Your task to perform on an android device: Open Google Maps and go to "Timeline" Image 0: 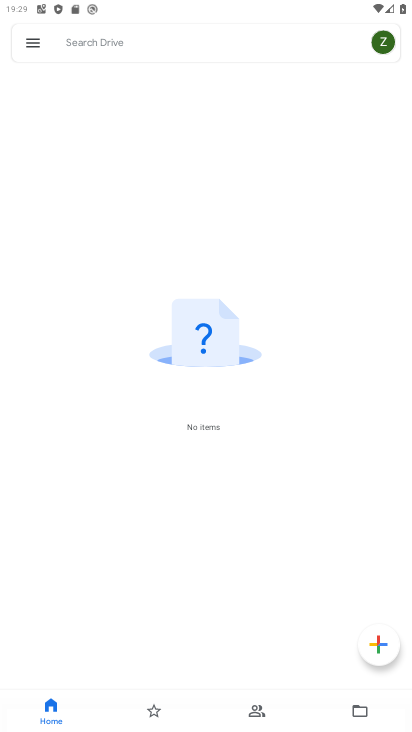
Step 0: press home button
Your task to perform on an android device: Open Google Maps and go to "Timeline" Image 1: 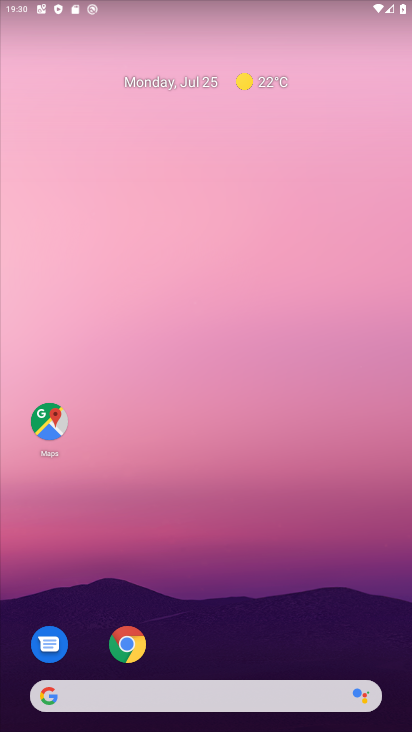
Step 1: click (47, 416)
Your task to perform on an android device: Open Google Maps and go to "Timeline" Image 2: 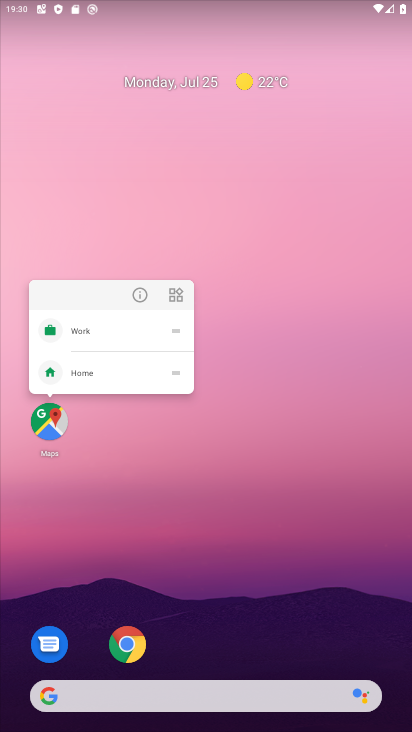
Step 2: click (47, 416)
Your task to perform on an android device: Open Google Maps and go to "Timeline" Image 3: 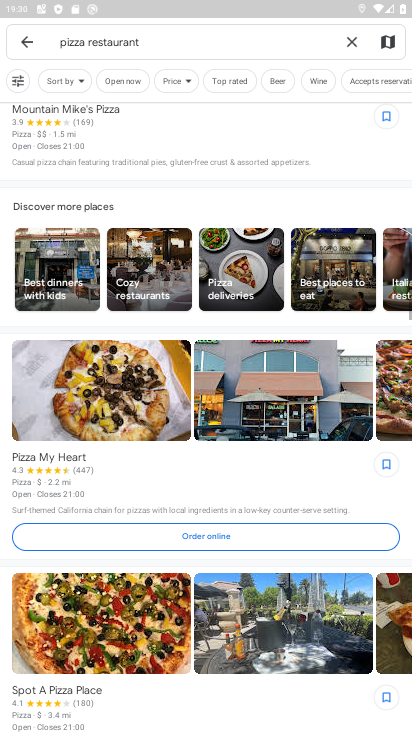
Step 3: click (28, 39)
Your task to perform on an android device: Open Google Maps and go to "Timeline" Image 4: 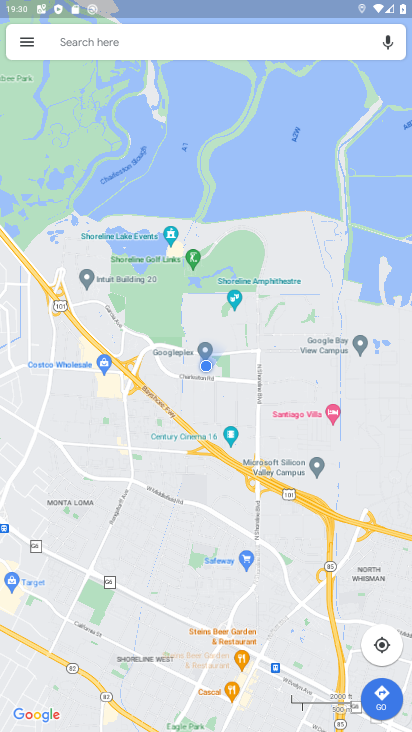
Step 4: click (14, 41)
Your task to perform on an android device: Open Google Maps and go to "Timeline" Image 5: 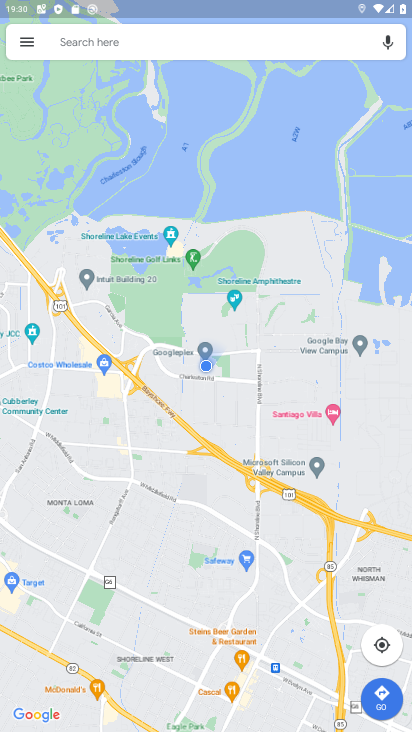
Step 5: click (31, 37)
Your task to perform on an android device: Open Google Maps and go to "Timeline" Image 6: 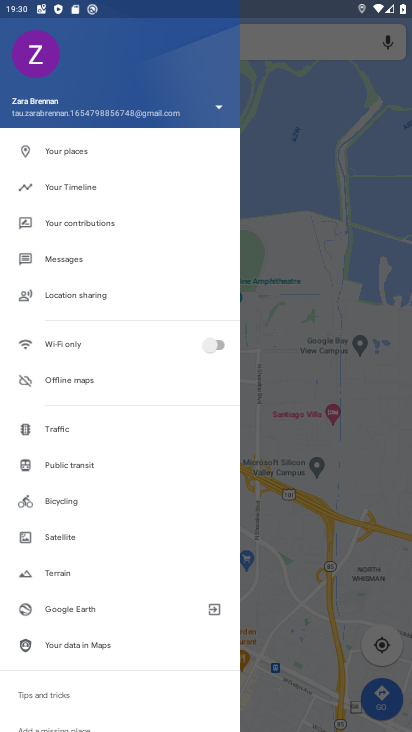
Step 6: click (104, 184)
Your task to perform on an android device: Open Google Maps and go to "Timeline" Image 7: 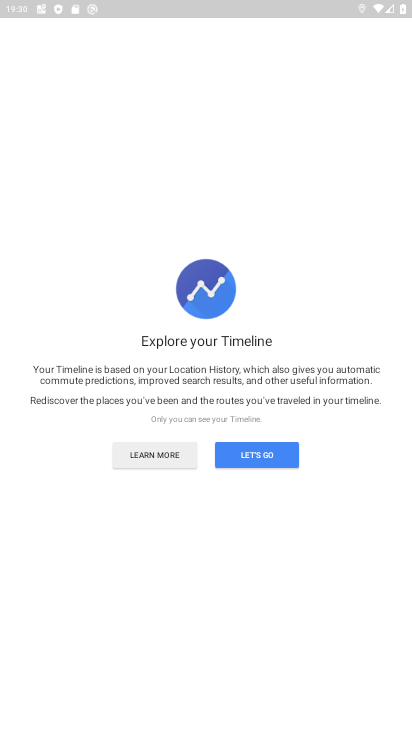
Step 7: click (266, 451)
Your task to perform on an android device: Open Google Maps and go to "Timeline" Image 8: 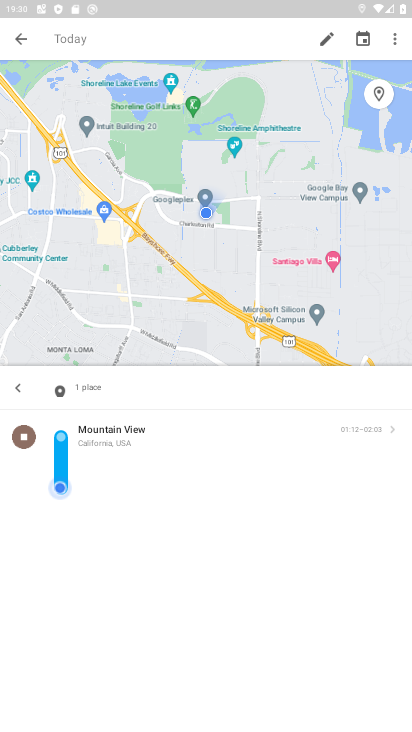
Step 8: task complete